Your task to perform on an android device: turn vacation reply on in the gmail app Image 0: 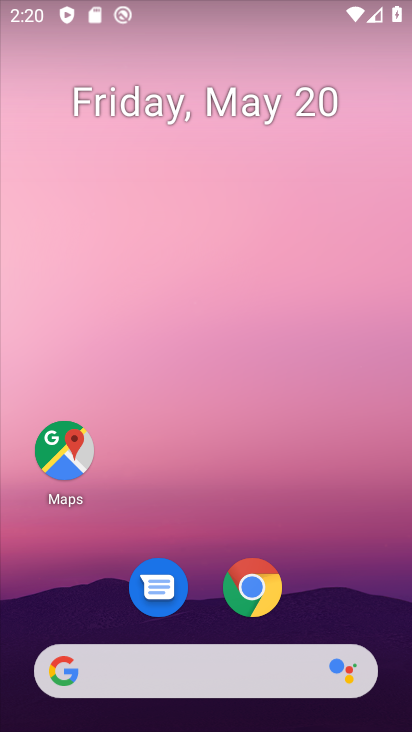
Step 0: drag from (188, 577) to (206, 282)
Your task to perform on an android device: turn vacation reply on in the gmail app Image 1: 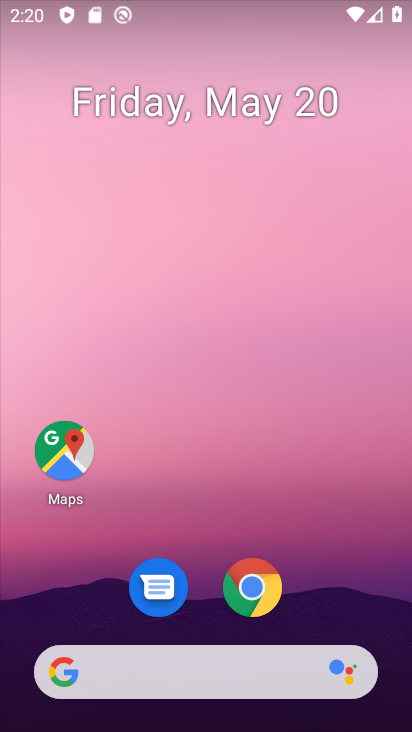
Step 1: drag from (197, 608) to (254, 261)
Your task to perform on an android device: turn vacation reply on in the gmail app Image 2: 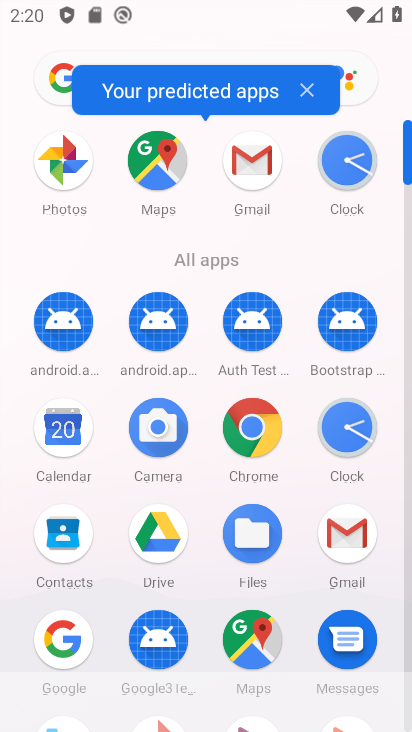
Step 2: click (244, 179)
Your task to perform on an android device: turn vacation reply on in the gmail app Image 3: 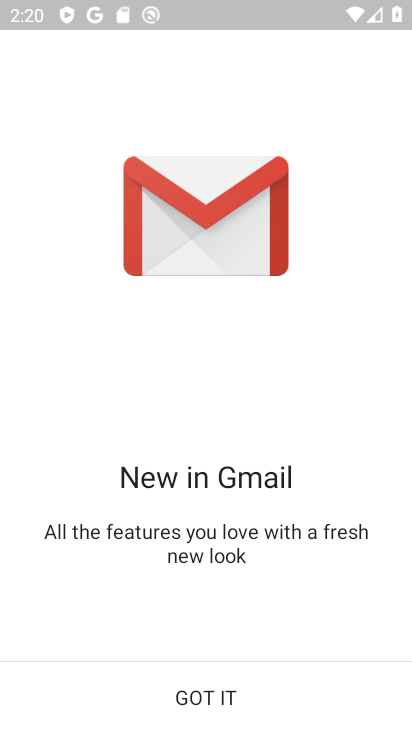
Step 3: click (241, 691)
Your task to perform on an android device: turn vacation reply on in the gmail app Image 4: 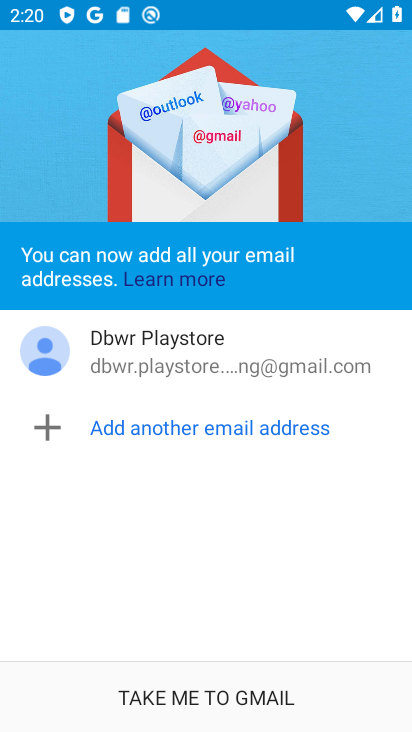
Step 4: click (159, 670)
Your task to perform on an android device: turn vacation reply on in the gmail app Image 5: 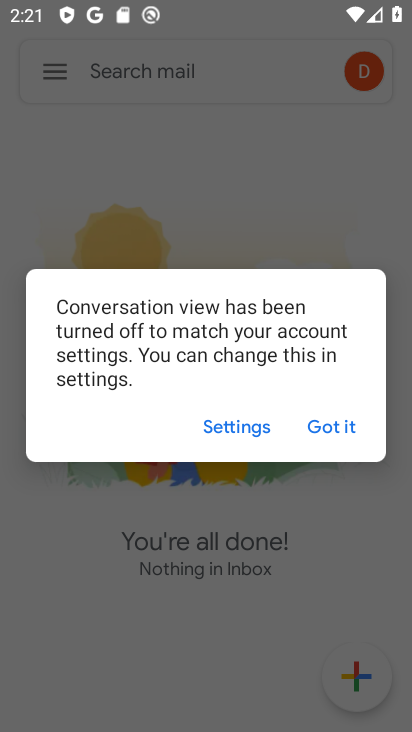
Step 5: click (316, 427)
Your task to perform on an android device: turn vacation reply on in the gmail app Image 6: 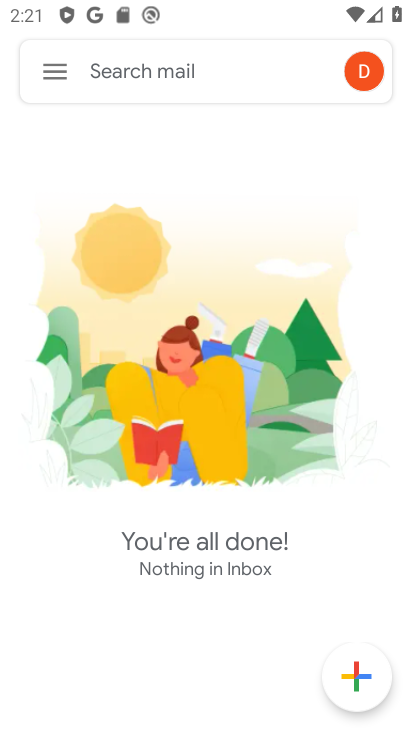
Step 6: click (40, 67)
Your task to perform on an android device: turn vacation reply on in the gmail app Image 7: 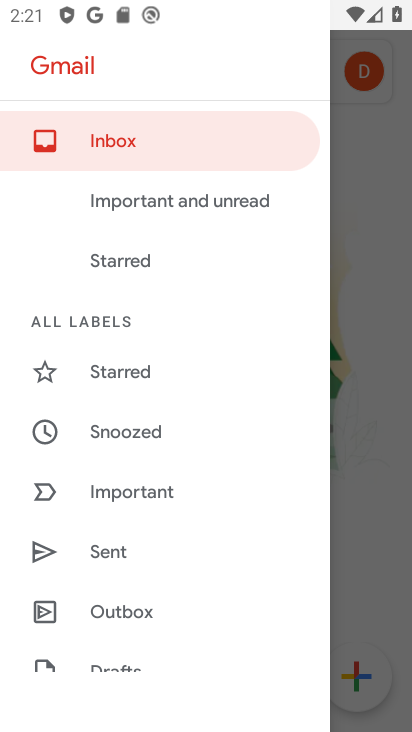
Step 7: drag from (174, 579) to (311, 225)
Your task to perform on an android device: turn vacation reply on in the gmail app Image 8: 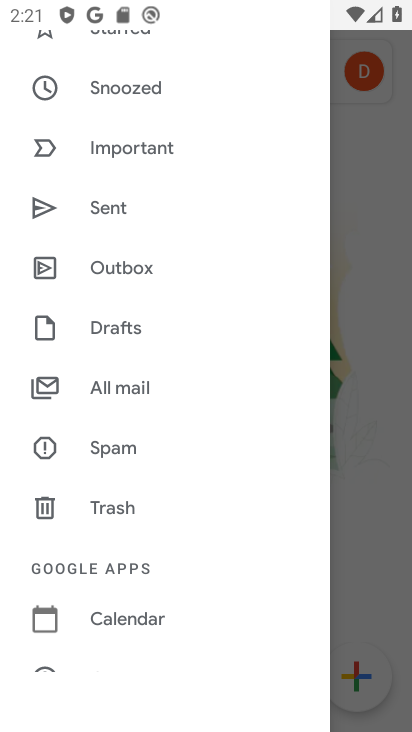
Step 8: drag from (127, 516) to (202, 322)
Your task to perform on an android device: turn vacation reply on in the gmail app Image 9: 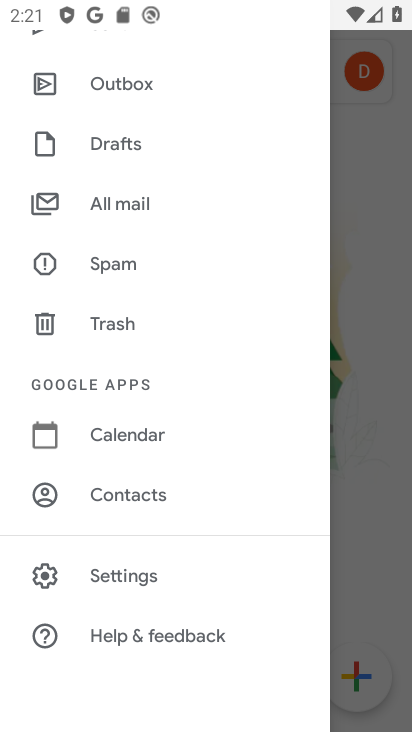
Step 9: click (92, 569)
Your task to perform on an android device: turn vacation reply on in the gmail app Image 10: 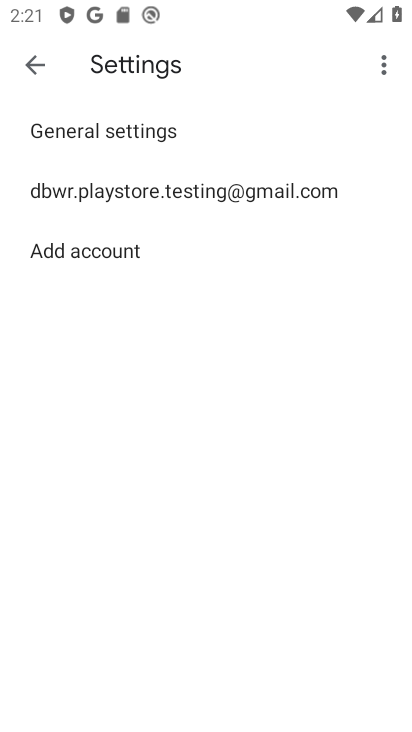
Step 10: click (95, 203)
Your task to perform on an android device: turn vacation reply on in the gmail app Image 11: 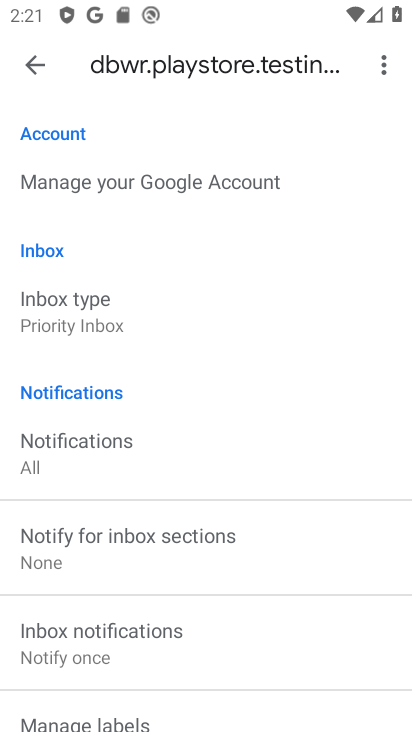
Step 11: drag from (157, 571) to (211, 233)
Your task to perform on an android device: turn vacation reply on in the gmail app Image 12: 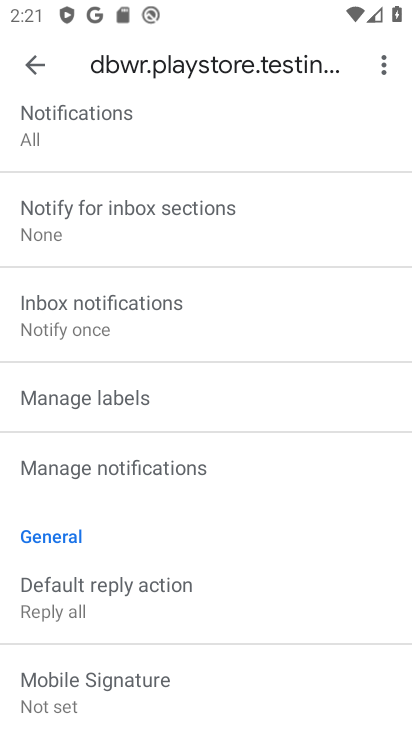
Step 12: drag from (137, 634) to (215, 338)
Your task to perform on an android device: turn vacation reply on in the gmail app Image 13: 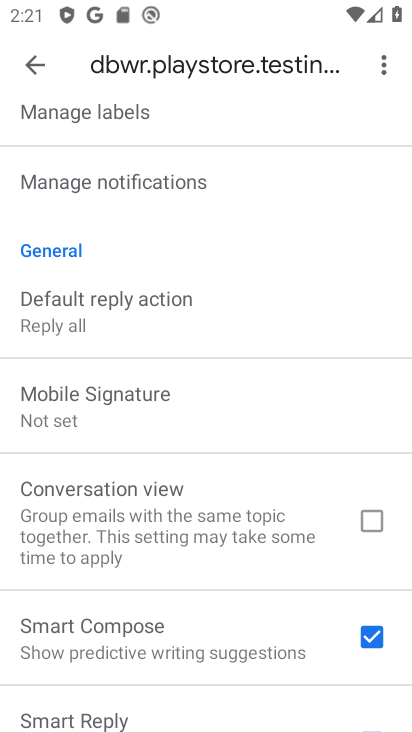
Step 13: drag from (160, 675) to (227, 371)
Your task to perform on an android device: turn vacation reply on in the gmail app Image 14: 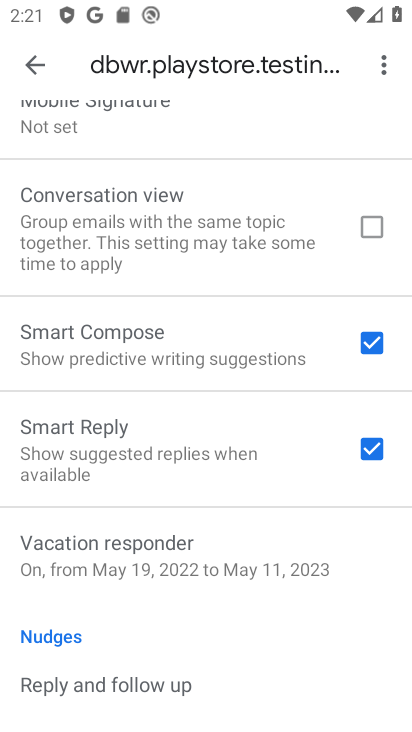
Step 14: click (149, 564)
Your task to perform on an android device: turn vacation reply on in the gmail app Image 15: 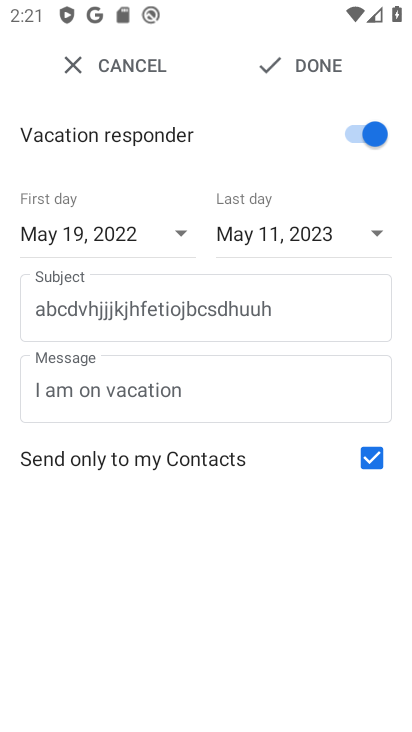
Step 15: task complete